Your task to perform on an android device: turn on location history Image 0: 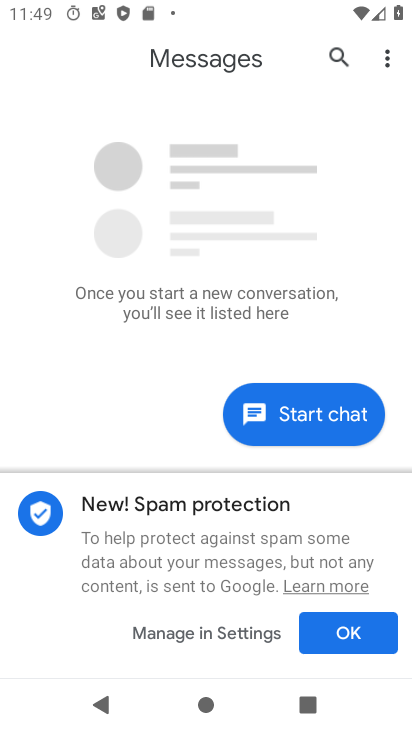
Step 0: press home button
Your task to perform on an android device: turn on location history Image 1: 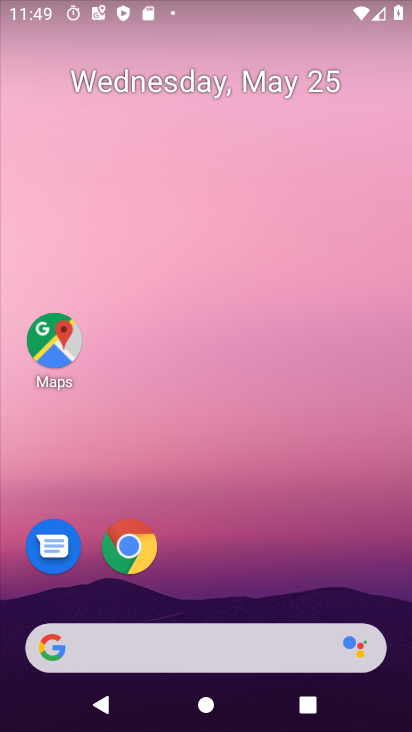
Step 1: drag from (255, 588) to (264, 62)
Your task to perform on an android device: turn on location history Image 2: 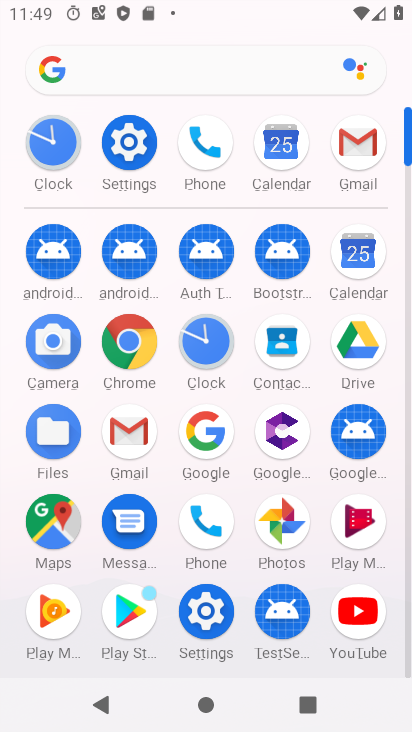
Step 2: click (129, 145)
Your task to perform on an android device: turn on location history Image 3: 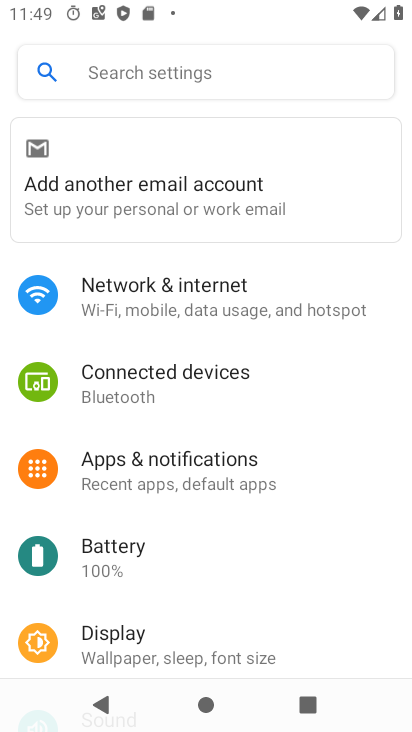
Step 3: drag from (145, 612) to (152, 321)
Your task to perform on an android device: turn on location history Image 4: 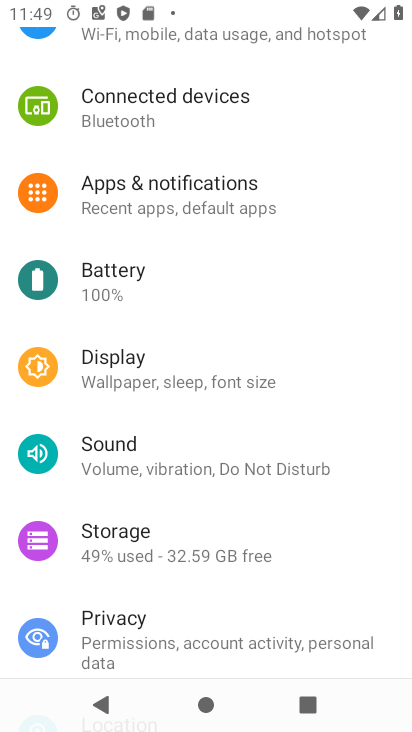
Step 4: drag from (163, 563) to (164, 232)
Your task to perform on an android device: turn on location history Image 5: 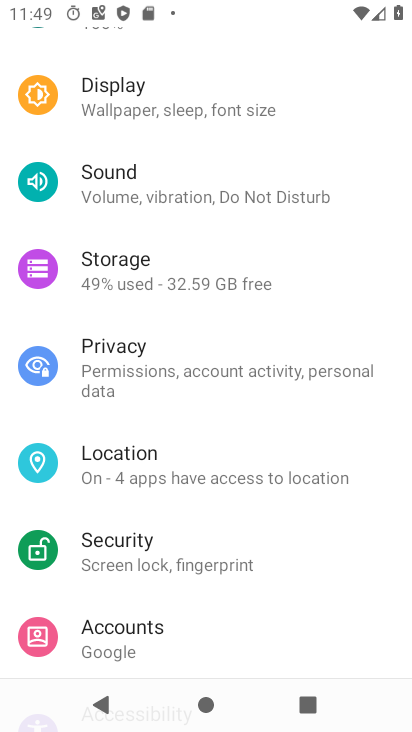
Step 5: click (138, 480)
Your task to perform on an android device: turn on location history Image 6: 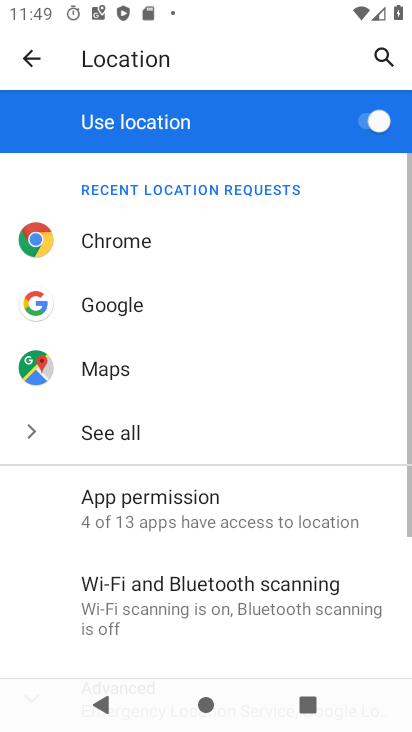
Step 6: drag from (154, 593) to (158, 212)
Your task to perform on an android device: turn on location history Image 7: 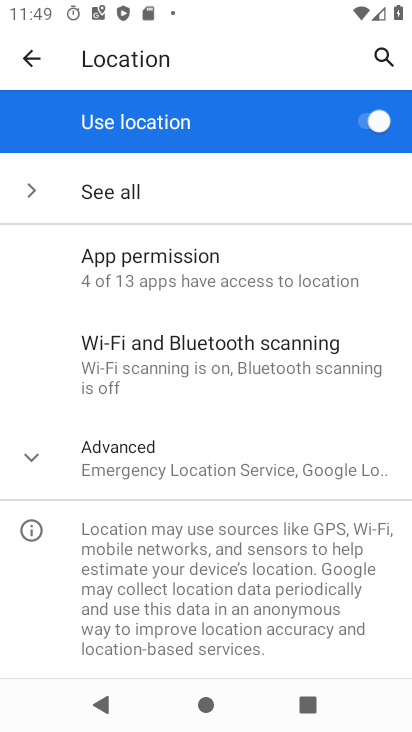
Step 7: click (135, 459)
Your task to perform on an android device: turn on location history Image 8: 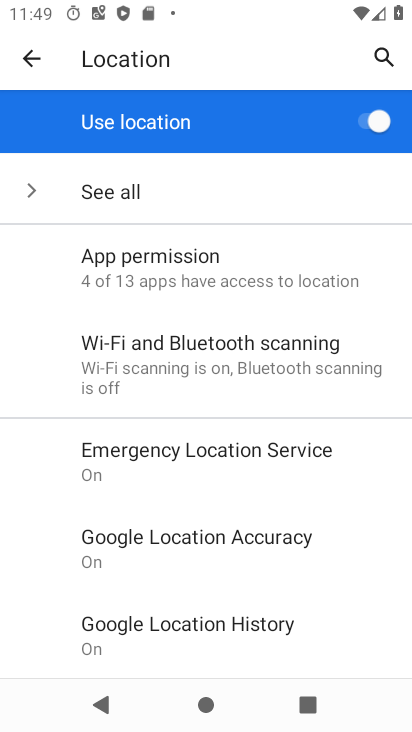
Step 8: click (164, 629)
Your task to perform on an android device: turn on location history Image 9: 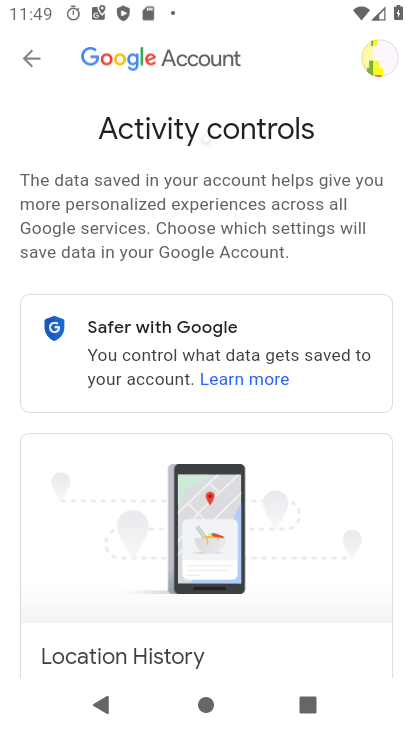
Step 9: task complete